Your task to perform on an android device: Go to notification settings Image 0: 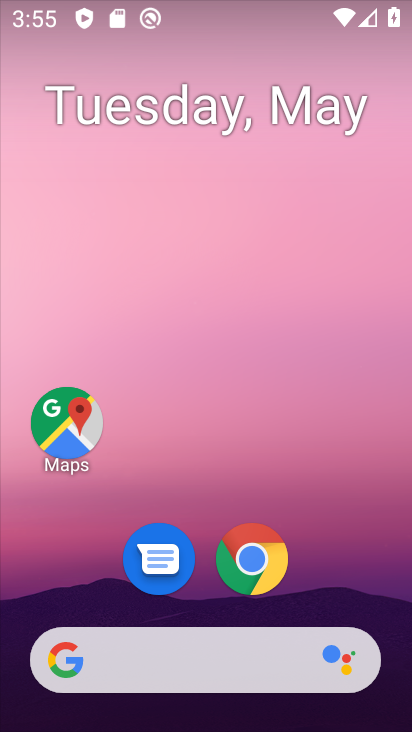
Step 0: drag from (361, 584) to (369, 0)
Your task to perform on an android device: Go to notification settings Image 1: 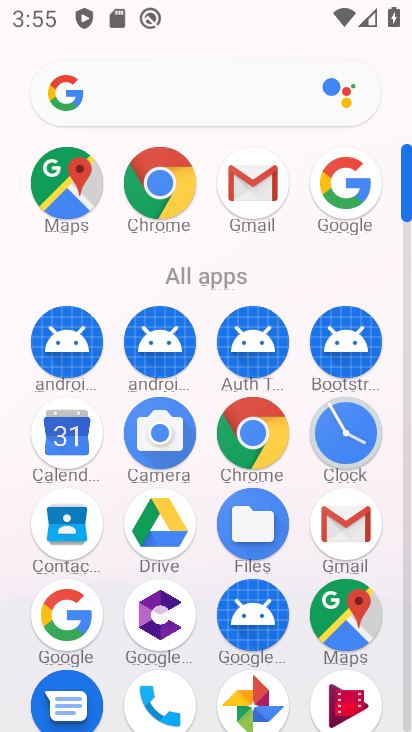
Step 1: click (404, 654)
Your task to perform on an android device: Go to notification settings Image 2: 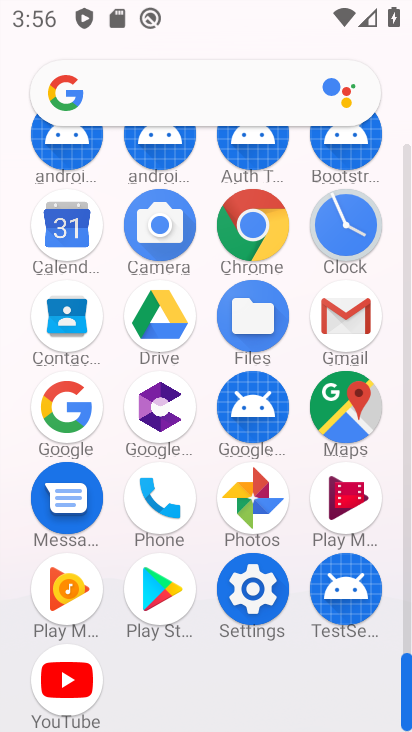
Step 2: click (253, 598)
Your task to perform on an android device: Go to notification settings Image 3: 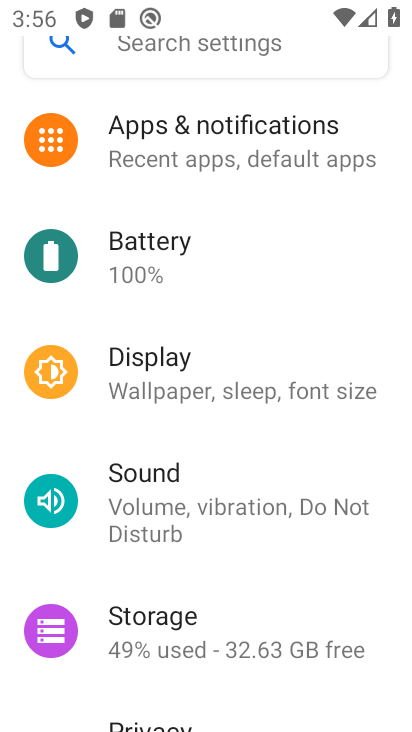
Step 3: click (290, 150)
Your task to perform on an android device: Go to notification settings Image 4: 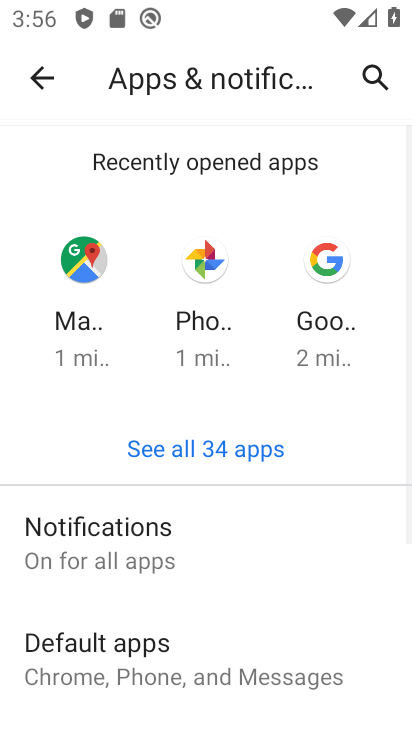
Step 4: click (277, 546)
Your task to perform on an android device: Go to notification settings Image 5: 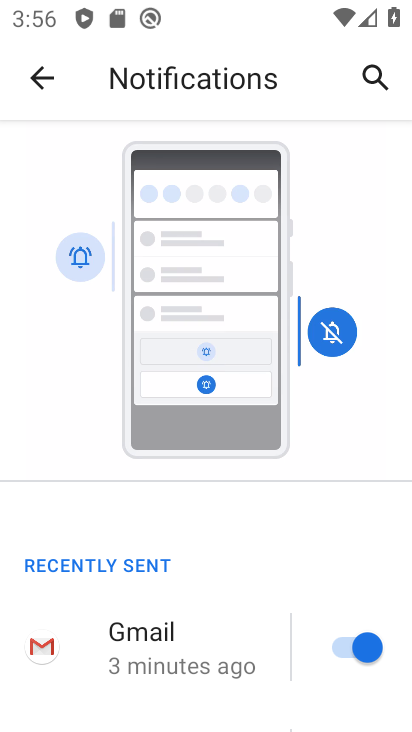
Step 5: task complete